Your task to perform on an android device: toggle sleep mode Image 0: 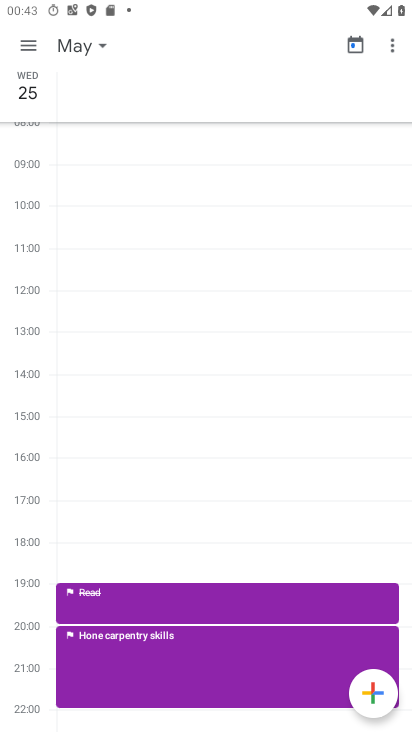
Step 0: press home button
Your task to perform on an android device: toggle sleep mode Image 1: 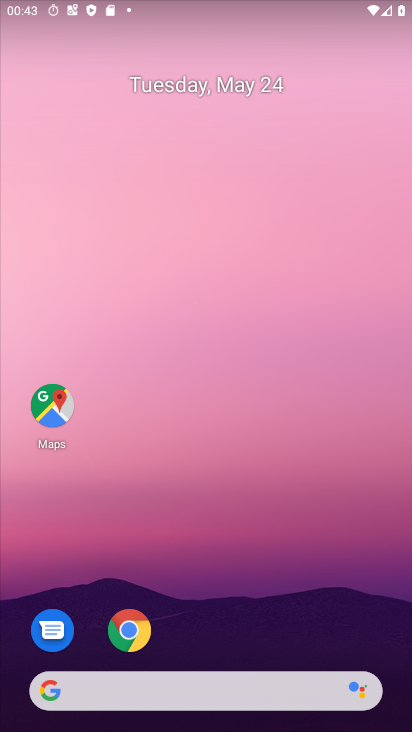
Step 1: drag from (265, 645) to (250, 27)
Your task to perform on an android device: toggle sleep mode Image 2: 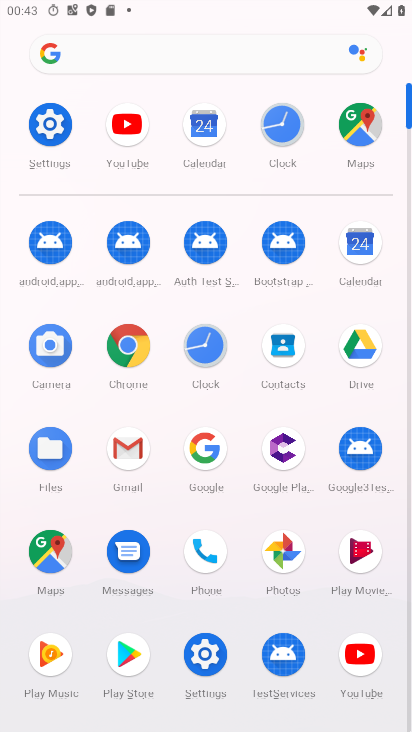
Step 2: click (40, 130)
Your task to perform on an android device: toggle sleep mode Image 3: 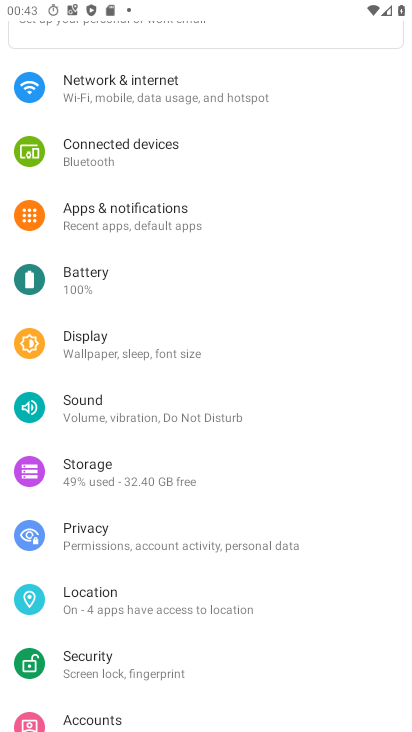
Step 3: click (96, 353)
Your task to perform on an android device: toggle sleep mode Image 4: 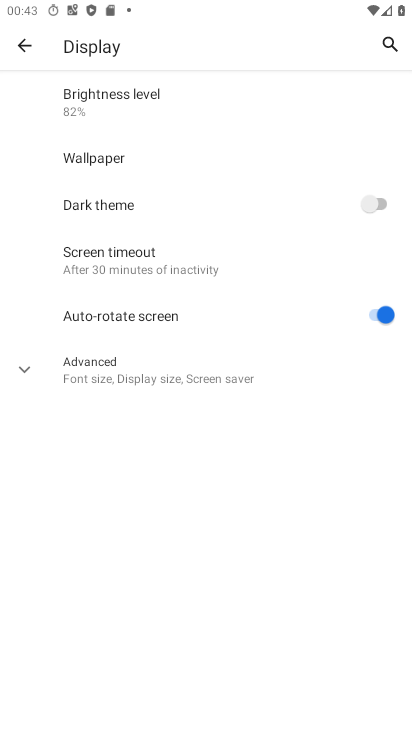
Step 4: click (27, 373)
Your task to perform on an android device: toggle sleep mode Image 5: 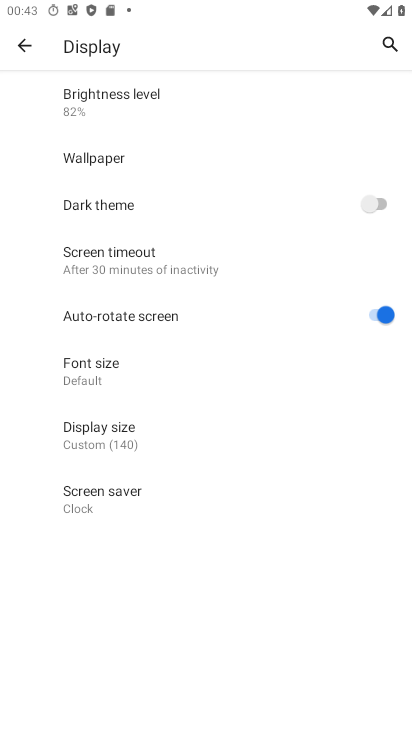
Step 5: task complete